Your task to perform on an android device: Go to network settings Image 0: 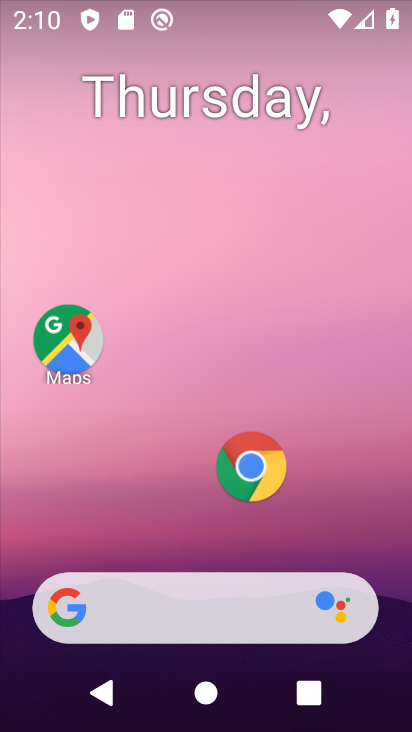
Step 0: drag from (197, 548) to (210, 155)
Your task to perform on an android device: Go to network settings Image 1: 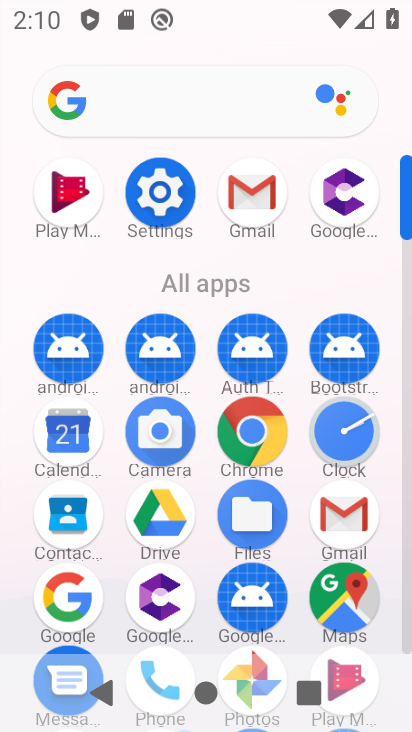
Step 1: click (162, 189)
Your task to perform on an android device: Go to network settings Image 2: 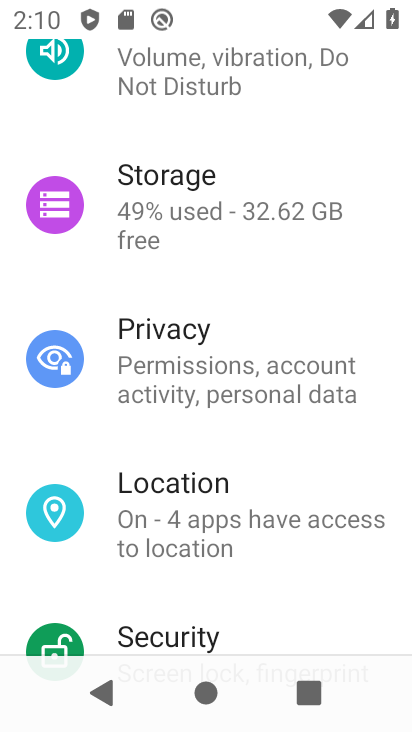
Step 2: drag from (272, 205) to (274, 548)
Your task to perform on an android device: Go to network settings Image 3: 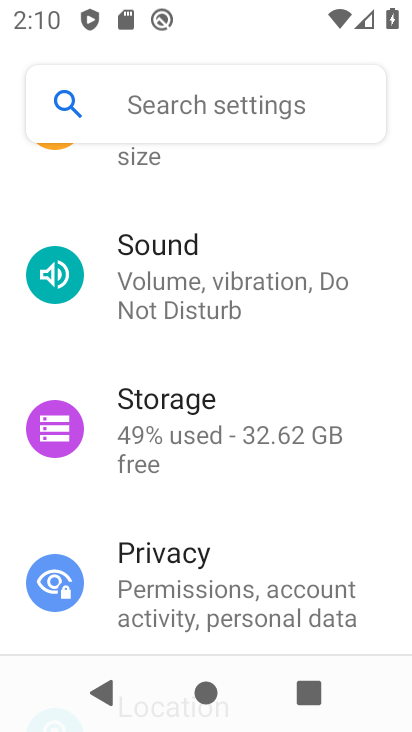
Step 3: drag from (229, 175) to (253, 482)
Your task to perform on an android device: Go to network settings Image 4: 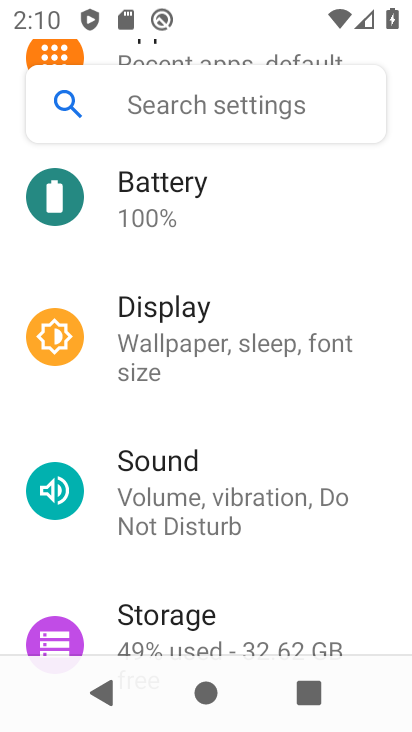
Step 4: drag from (216, 220) to (257, 527)
Your task to perform on an android device: Go to network settings Image 5: 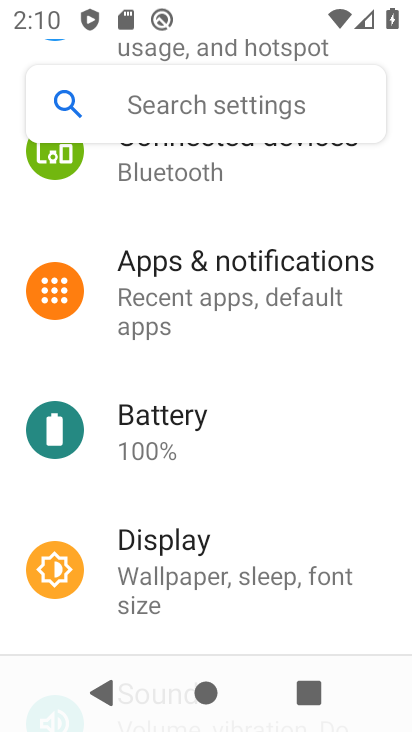
Step 5: drag from (230, 204) to (230, 506)
Your task to perform on an android device: Go to network settings Image 6: 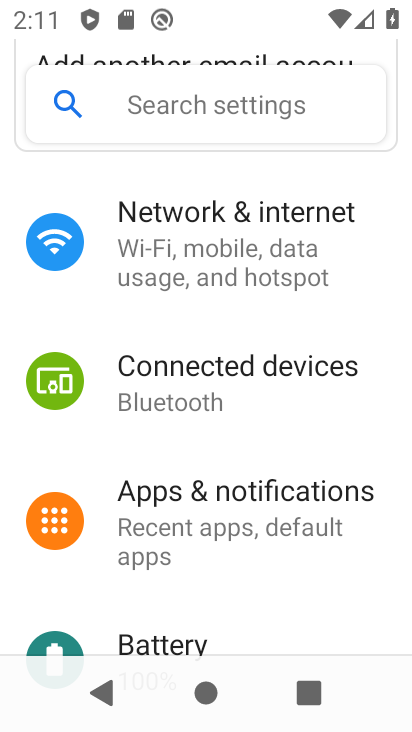
Step 6: click (179, 247)
Your task to perform on an android device: Go to network settings Image 7: 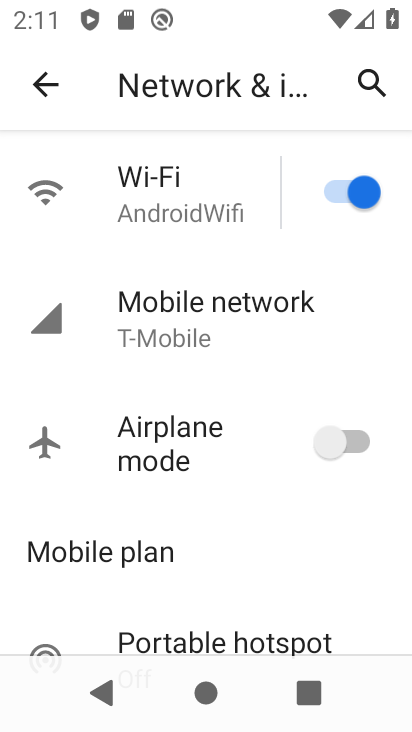
Step 7: task complete